Your task to perform on an android device: Play the latest video from the New York Times Image 0: 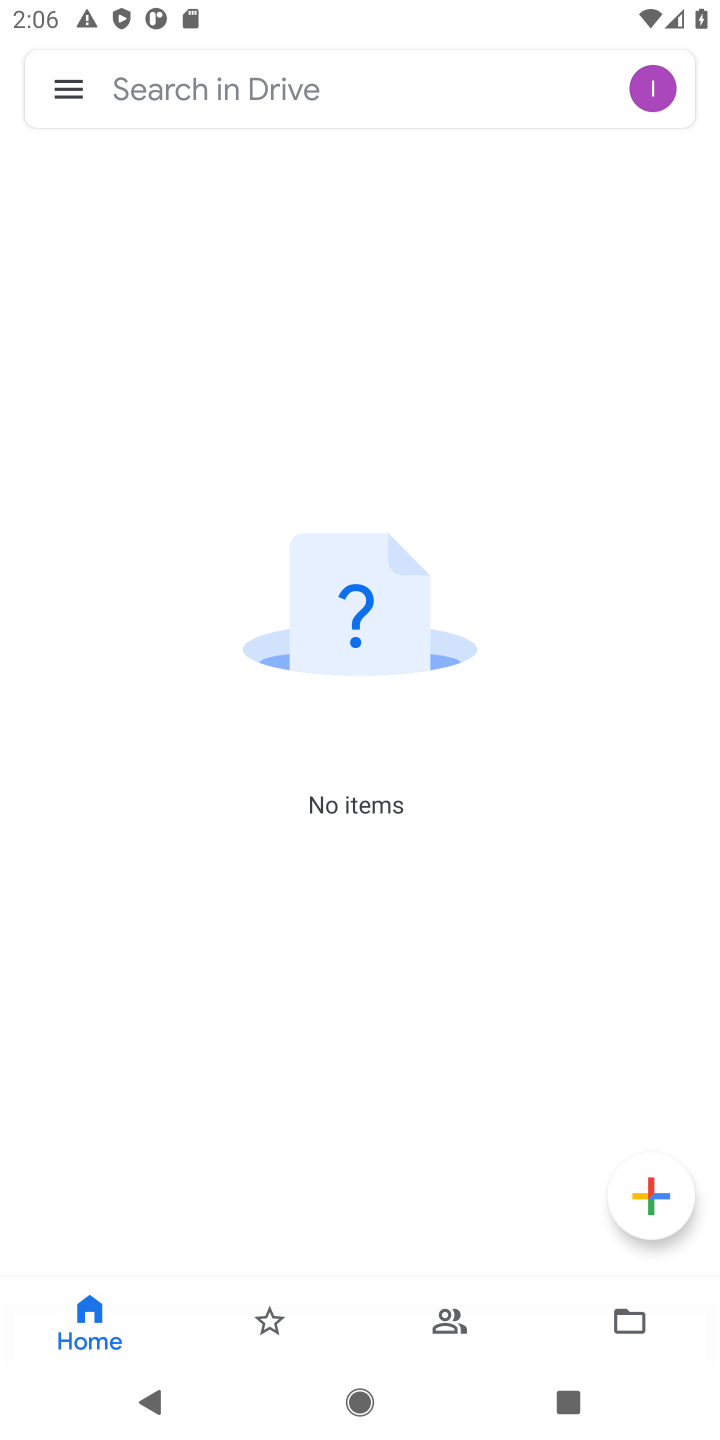
Step 0: press home button
Your task to perform on an android device: Play the latest video from the New York Times Image 1: 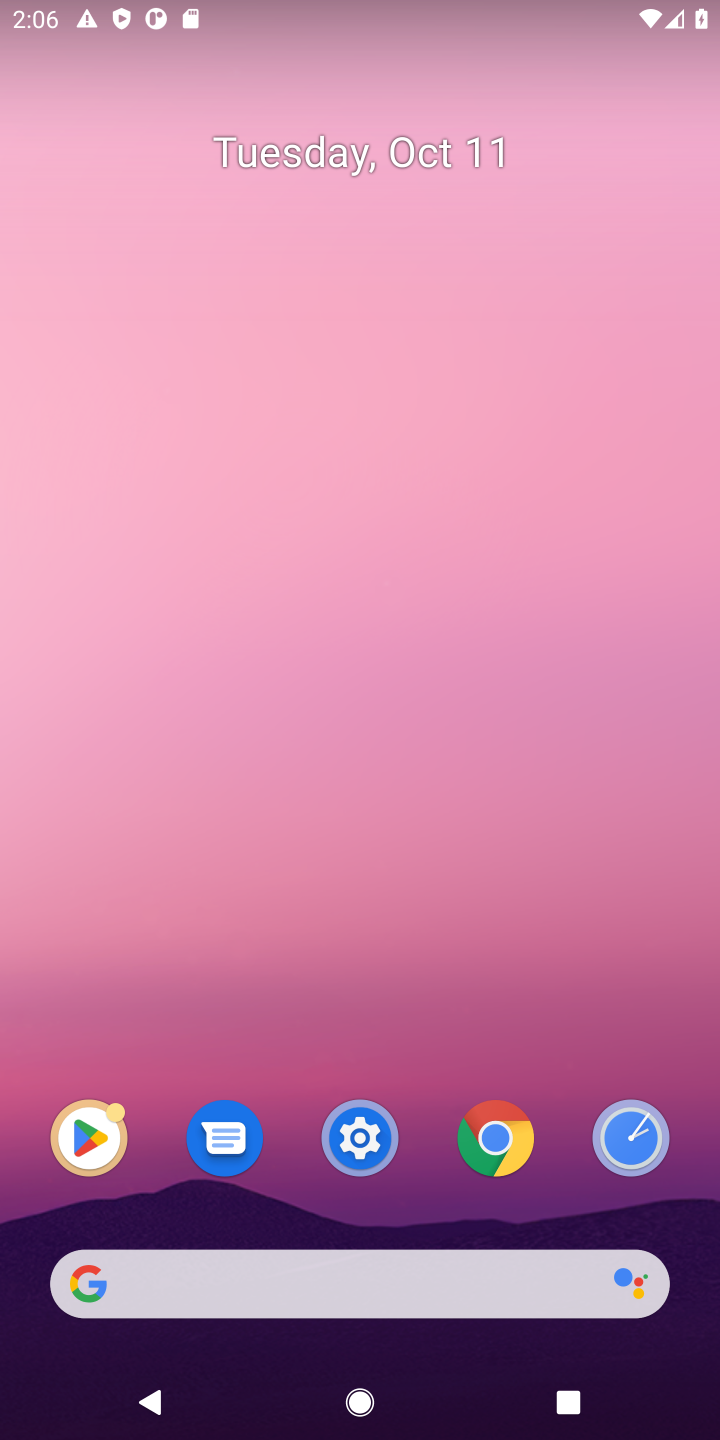
Step 1: drag from (477, 1079) to (315, 155)
Your task to perform on an android device: Play the latest video from the New York Times Image 2: 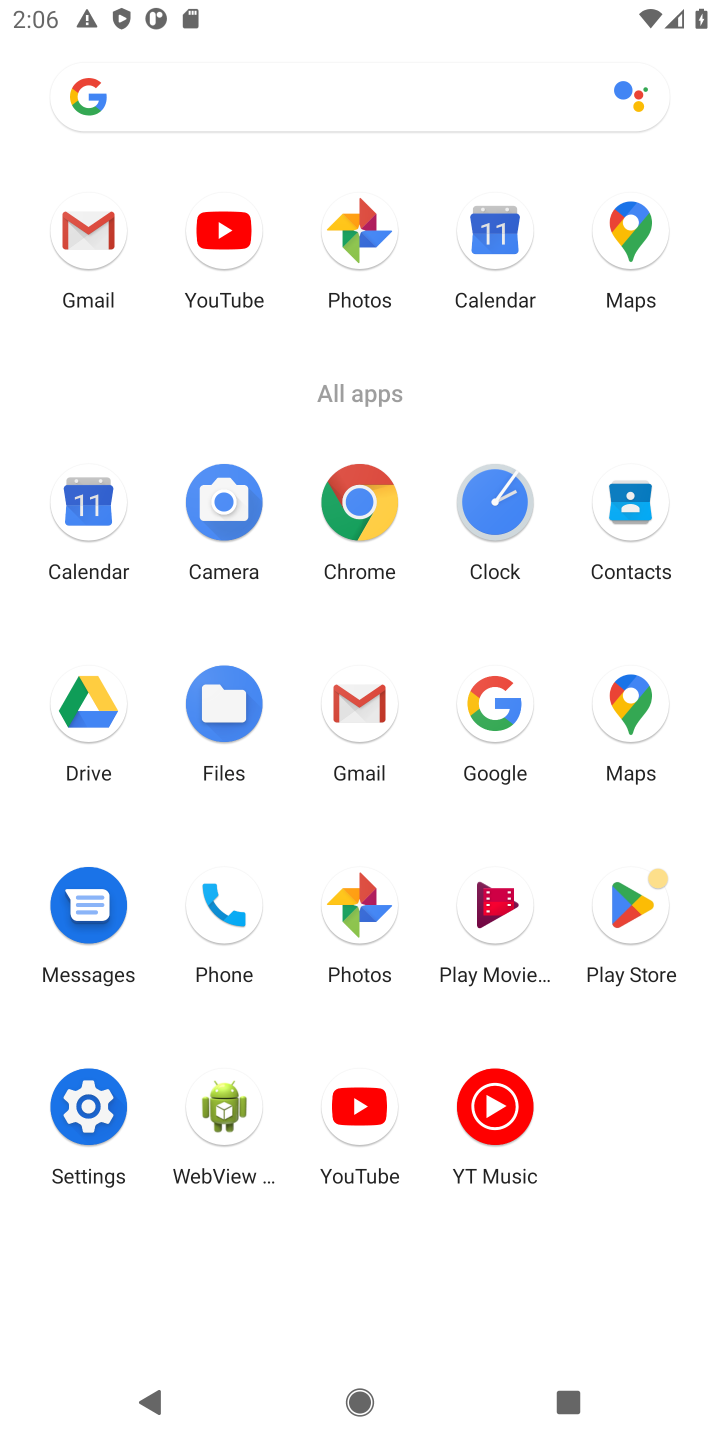
Step 2: click (237, 245)
Your task to perform on an android device: Play the latest video from the New York Times Image 3: 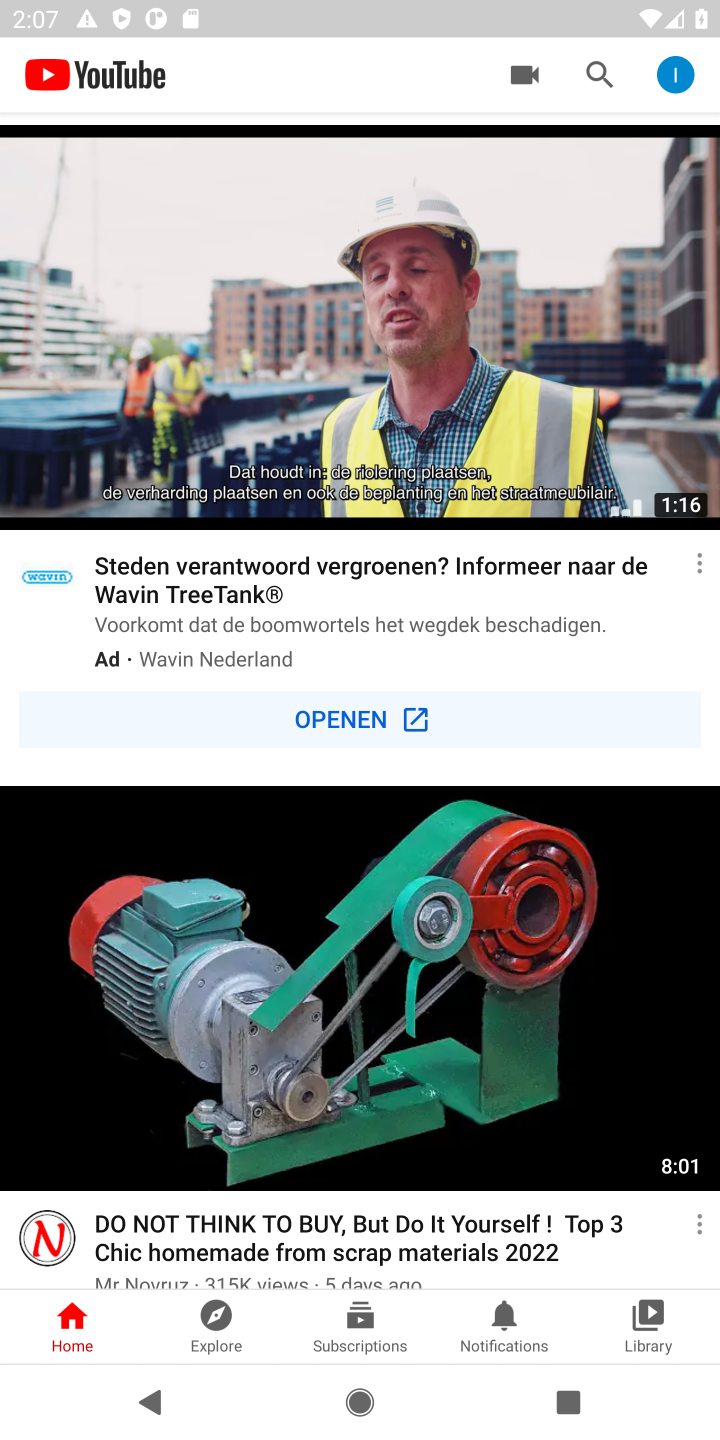
Step 3: click (592, 75)
Your task to perform on an android device: Play the latest video from the New York Times Image 4: 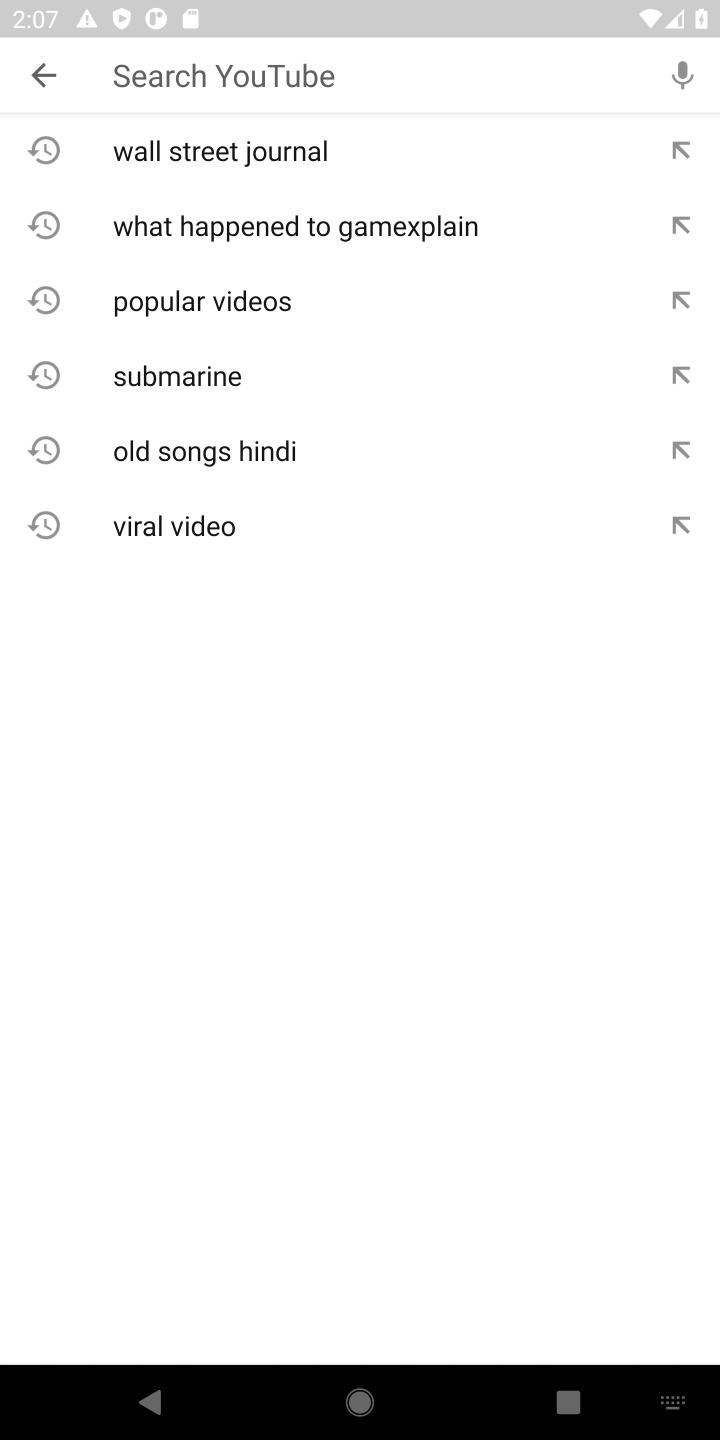
Step 4: type "new york times"
Your task to perform on an android device: Play the latest video from the New York Times Image 5: 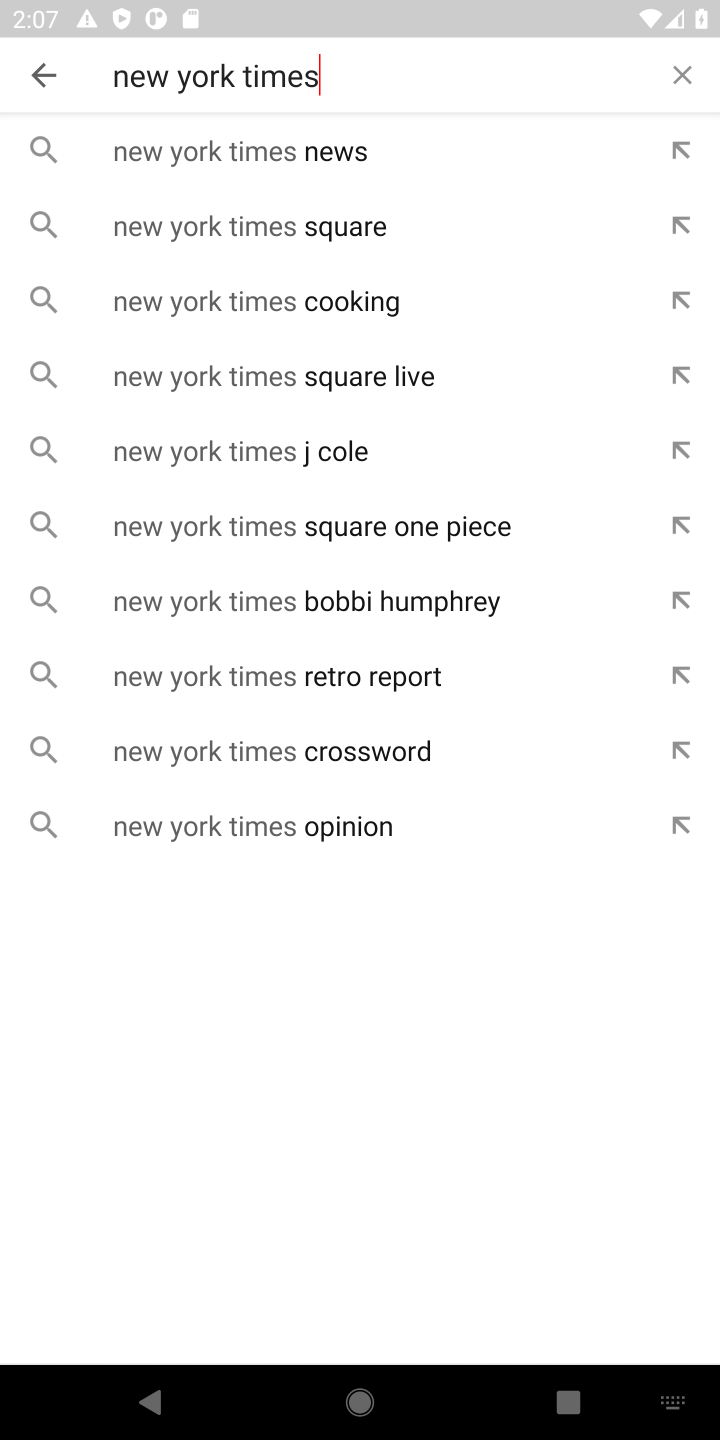
Step 5: press enter
Your task to perform on an android device: Play the latest video from the New York Times Image 6: 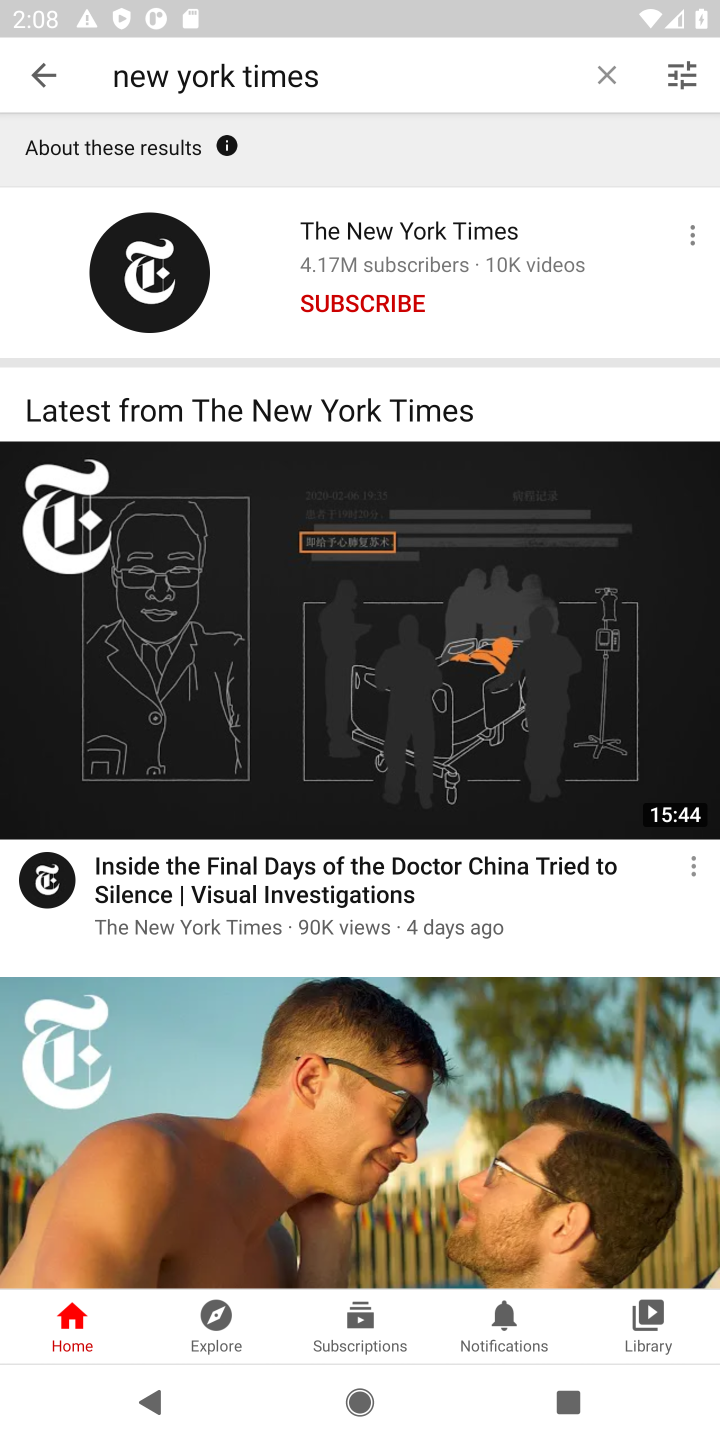
Step 6: click (553, 257)
Your task to perform on an android device: Play the latest video from the New York Times Image 7: 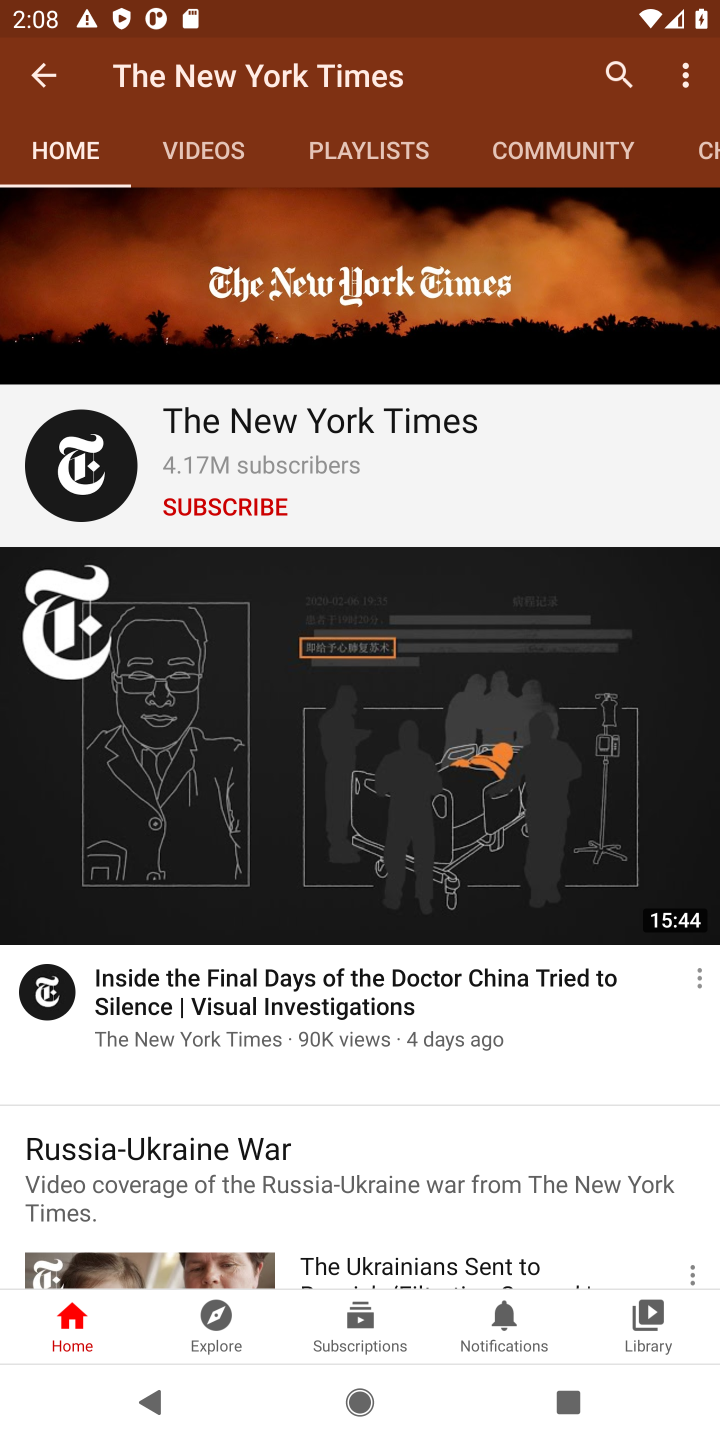
Step 7: click (209, 139)
Your task to perform on an android device: Play the latest video from the New York Times Image 8: 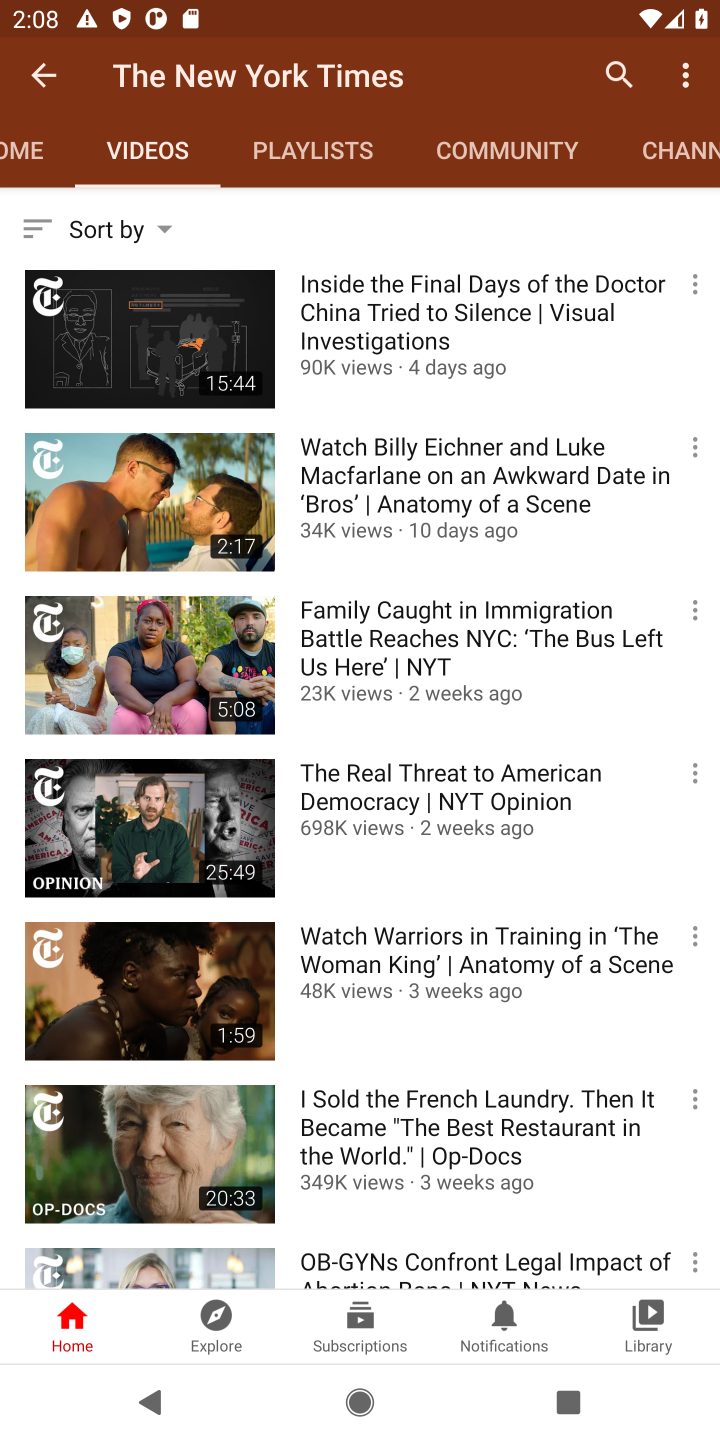
Step 8: click (508, 273)
Your task to perform on an android device: Play the latest video from the New York Times Image 9: 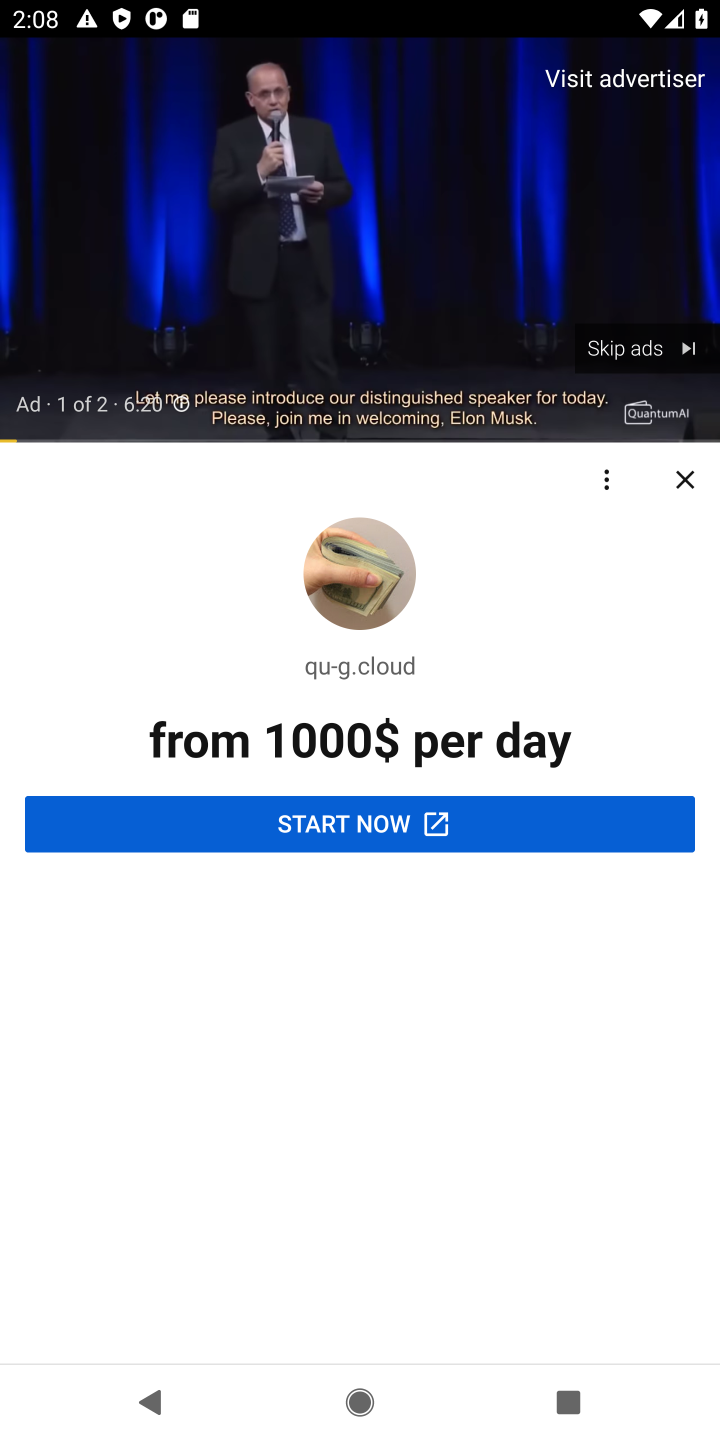
Step 9: task complete